Your task to perform on an android device: Go to display settings Image 0: 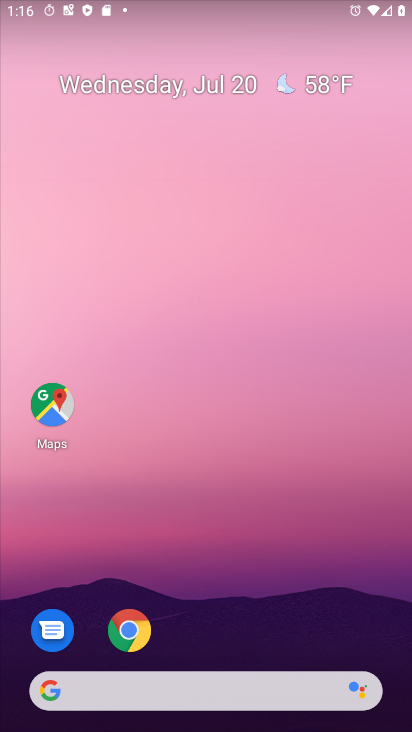
Step 0: drag from (180, 677) to (318, 46)
Your task to perform on an android device: Go to display settings Image 1: 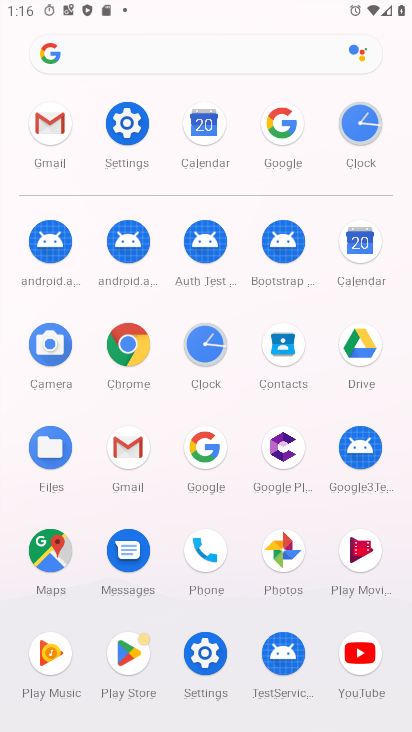
Step 1: click (133, 133)
Your task to perform on an android device: Go to display settings Image 2: 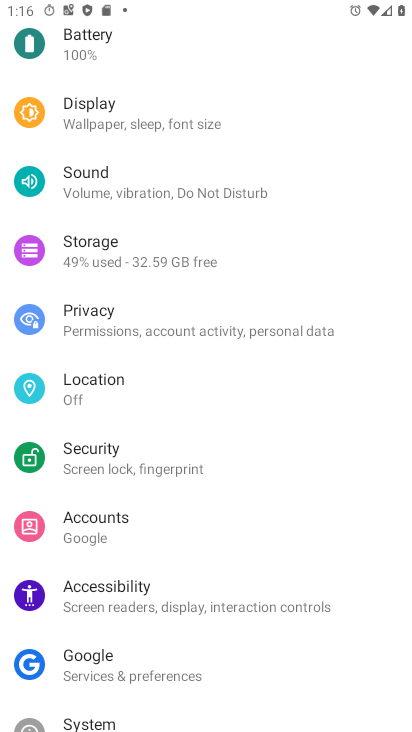
Step 2: click (131, 119)
Your task to perform on an android device: Go to display settings Image 3: 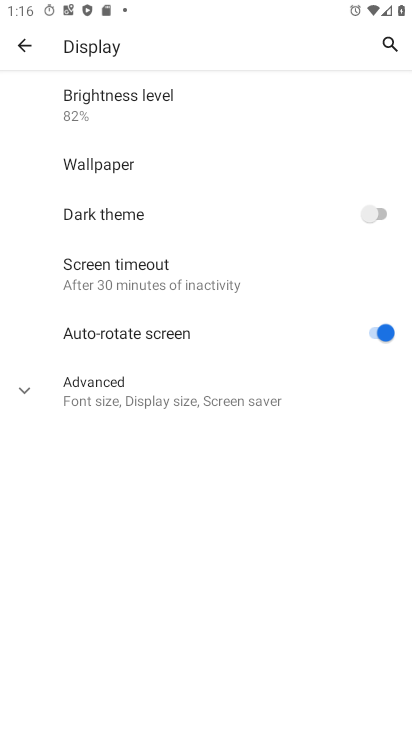
Step 3: task complete